Your task to perform on an android device: open app "LiveIn - Share Your Moment" Image 0: 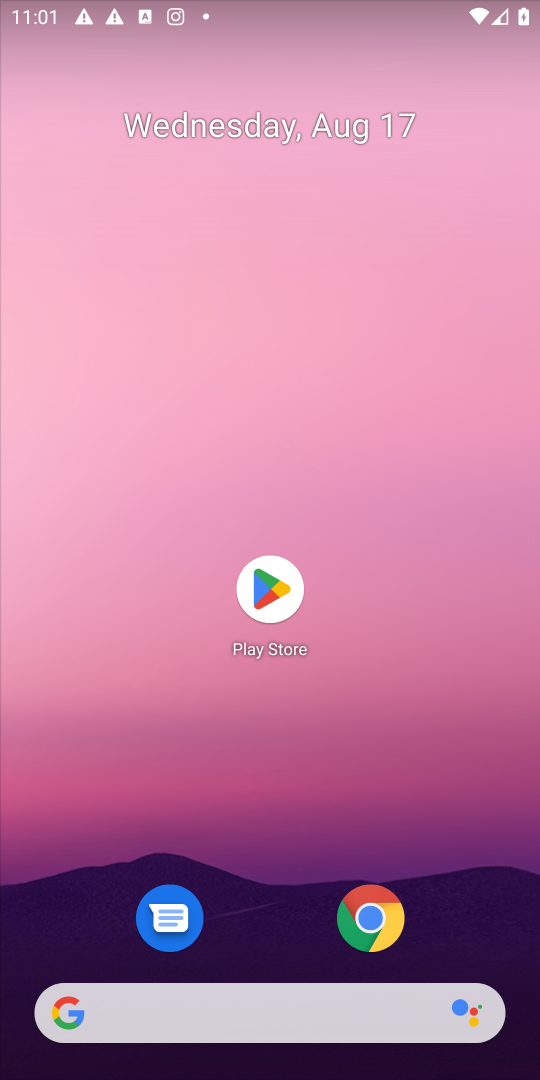
Step 0: click (280, 591)
Your task to perform on an android device: open app "LiveIn - Share Your Moment" Image 1: 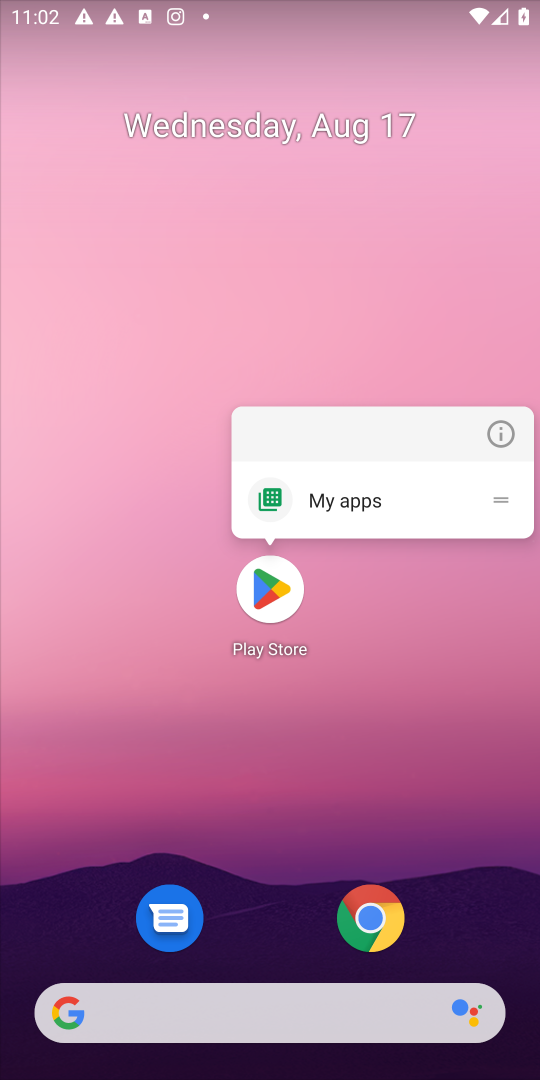
Step 1: click (269, 589)
Your task to perform on an android device: open app "LiveIn - Share Your Moment" Image 2: 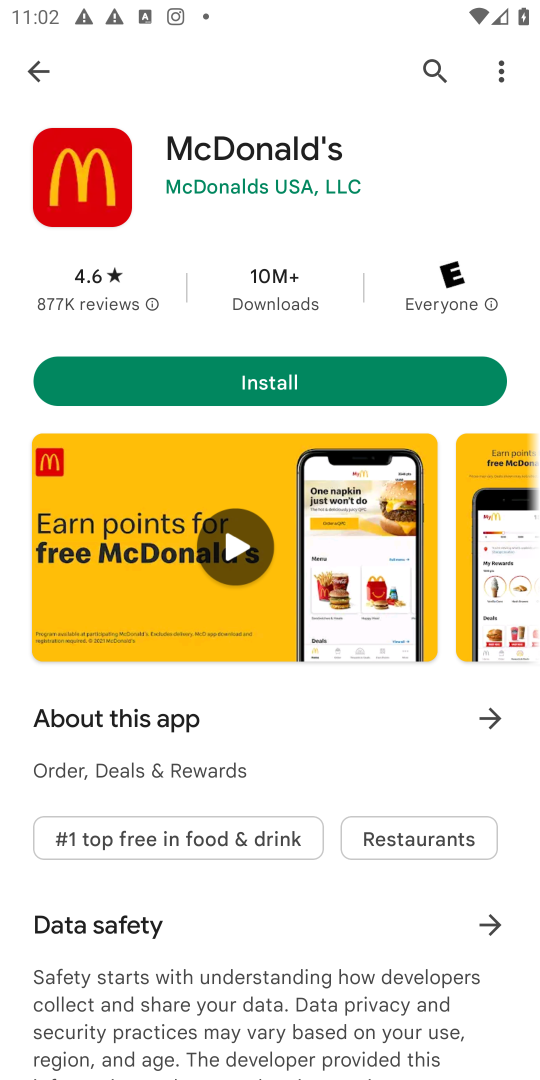
Step 2: click (425, 68)
Your task to perform on an android device: open app "LiveIn - Share Your Moment" Image 3: 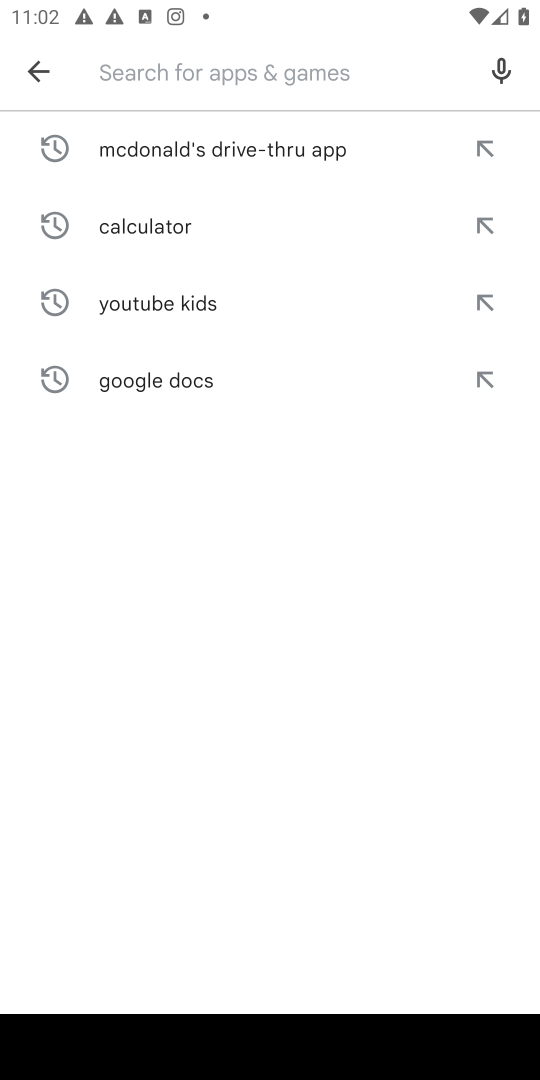
Step 3: type "LiveIn - Share Your Moment"
Your task to perform on an android device: open app "LiveIn - Share Your Moment" Image 4: 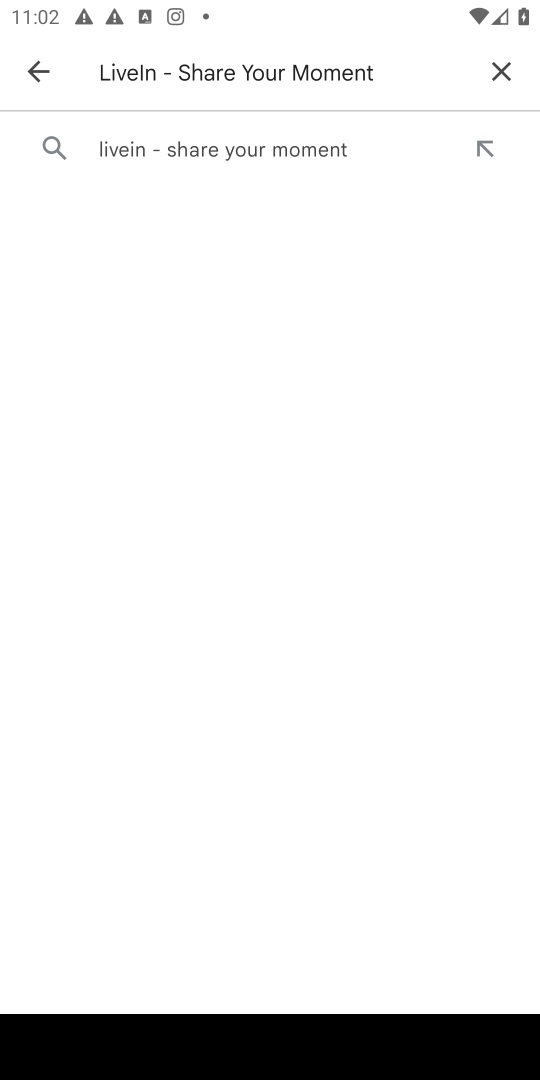
Step 4: click (245, 144)
Your task to perform on an android device: open app "LiveIn - Share Your Moment" Image 5: 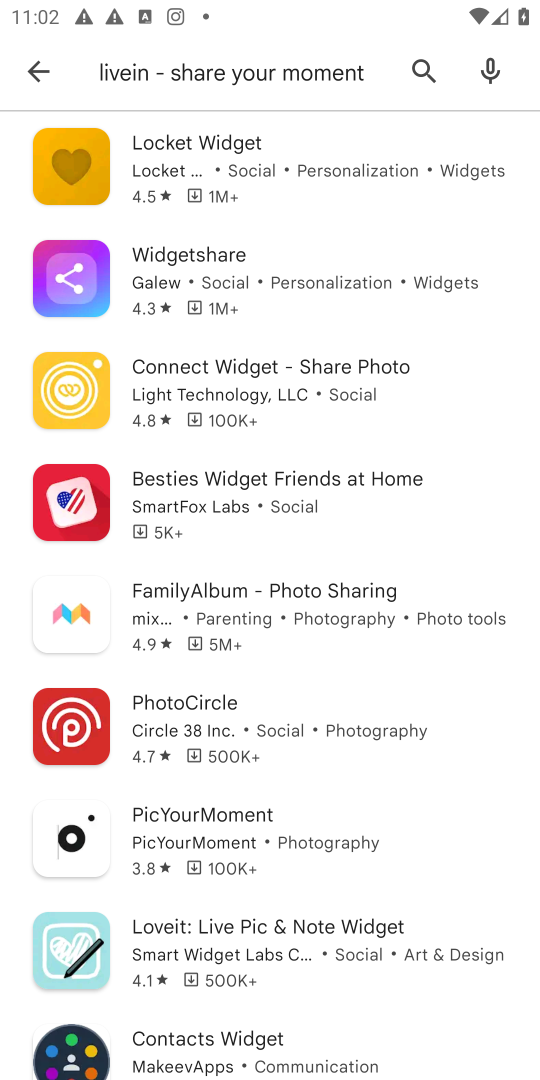
Step 5: task complete